Your task to perform on an android device: What's the weather going to be tomorrow? Image 0: 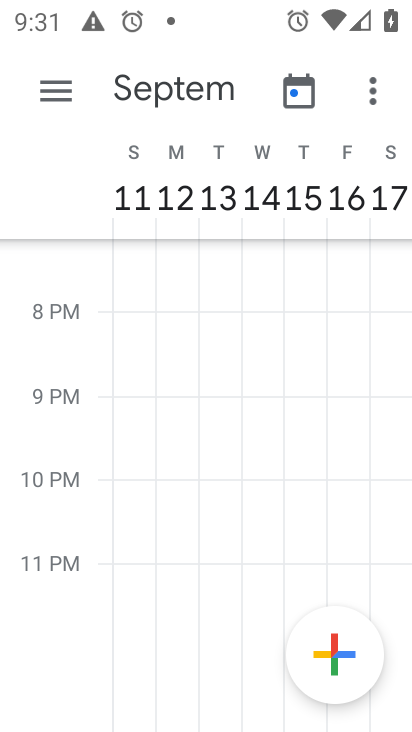
Step 0: press home button
Your task to perform on an android device: What's the weather going to be tomorrow? Image 1: 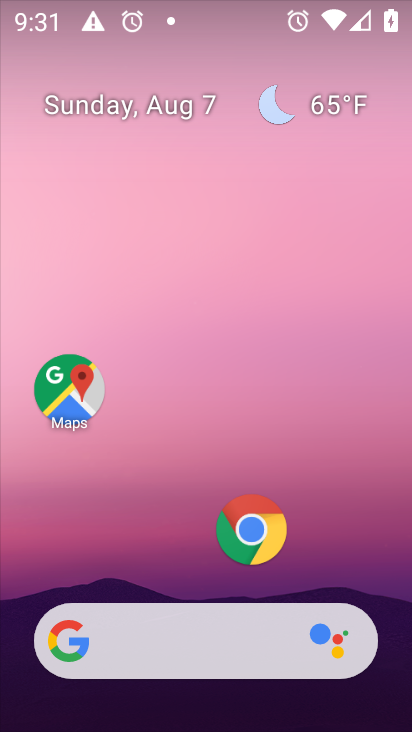
Step 1: click (310, 99)
Your task to perform on an android device: What's the weather going to be tomorrow? Image 2: 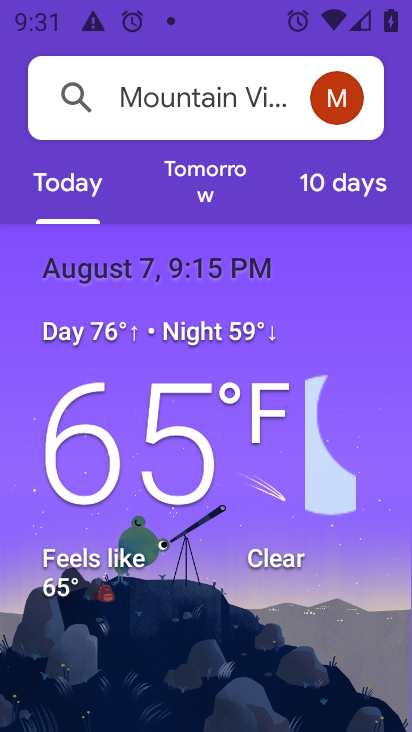
Step 2: click (204, 199)
Your task to perform on an android device: What's the weather going to be tomorrow? Image 3: 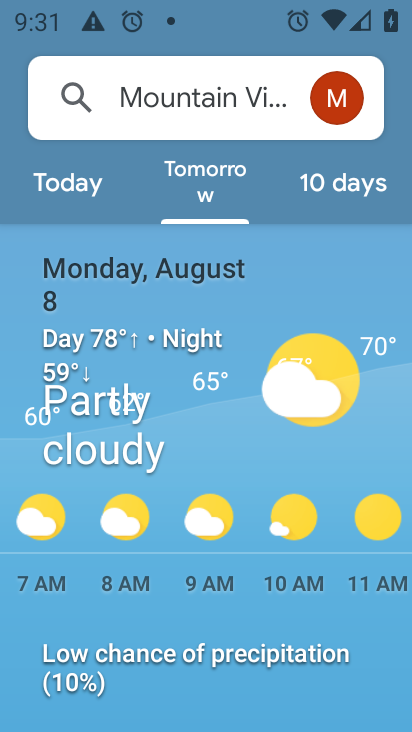
Step 3: task complete